Your task to perform on an android device: search for starred emails in the gmail app Image 0: 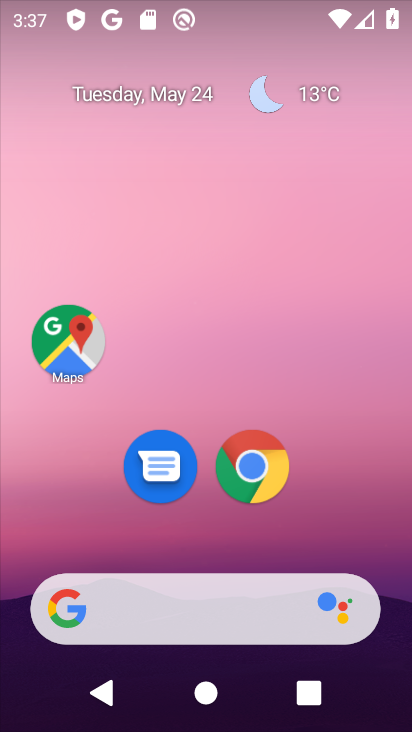
Step 0: drag from (313, 477) to (277, 155)
Your task to perform on an android device: search for starred emails in the gmail app Image 1: 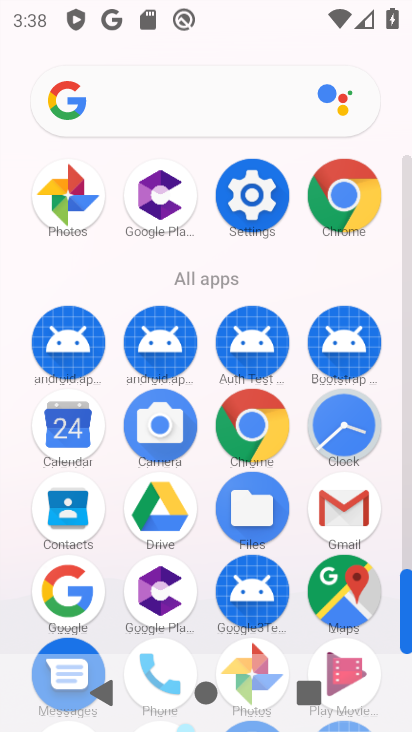
Step 1: click (370, 500)
Your task to perform on an android device: search for starred emails in the gmail app Image 2: 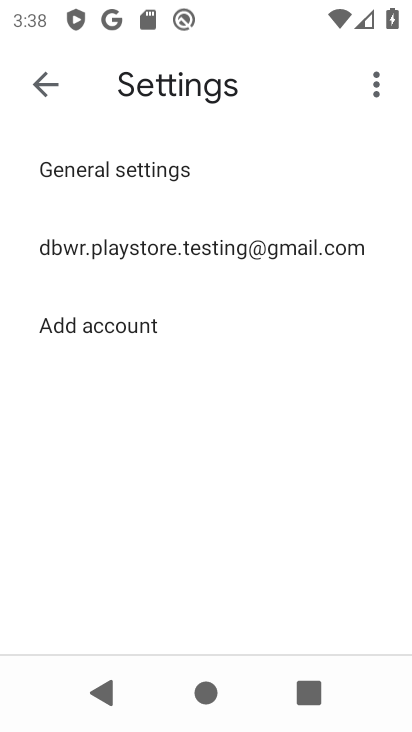
Step 2: click (44, 93)
Your task to perform on an android device: search for starred emails in the gmail app Image 3: 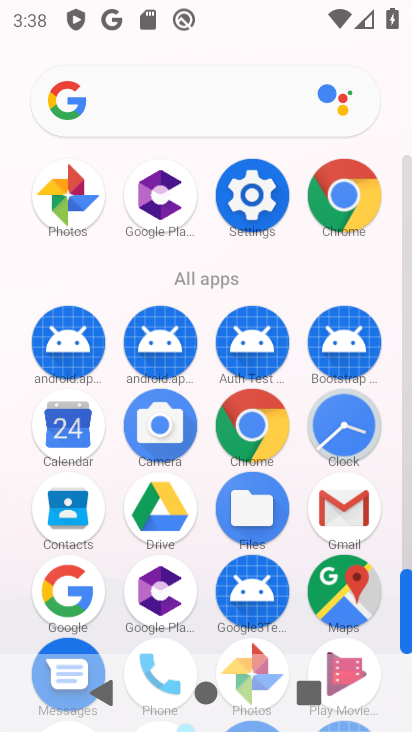
Step 3: click (343, 503)
Your task to perform on an android device: search for starred emails in the gmail app Image 4: 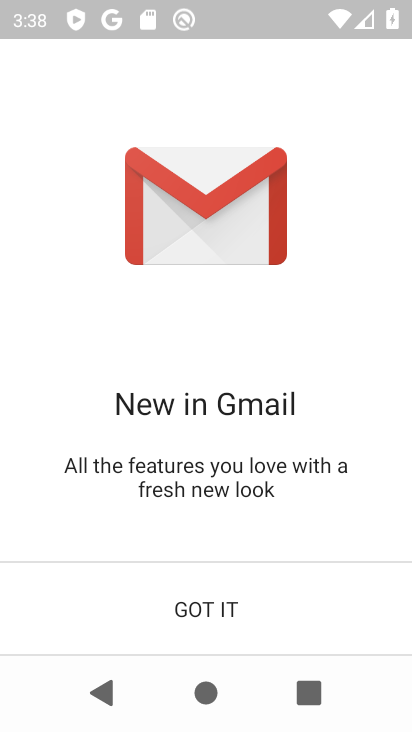
Step 4: click (209, 584)
Your task to perform on an android device: search for starred emails in the gmail app Image 5: 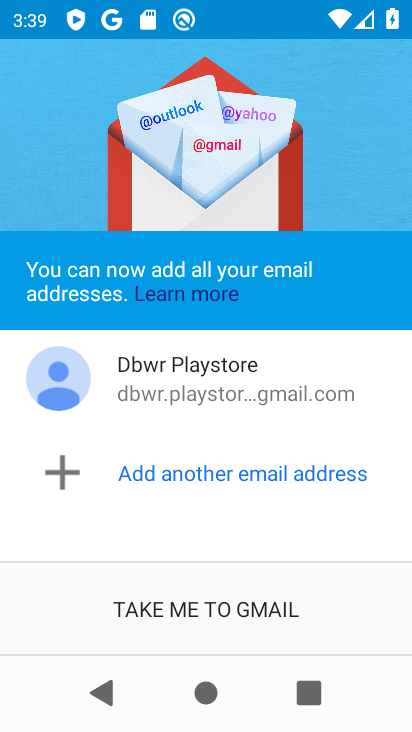
Step 5: click (215, 621)
Your task to perform on an android device: search for starred emails in the gmail app Image 6: 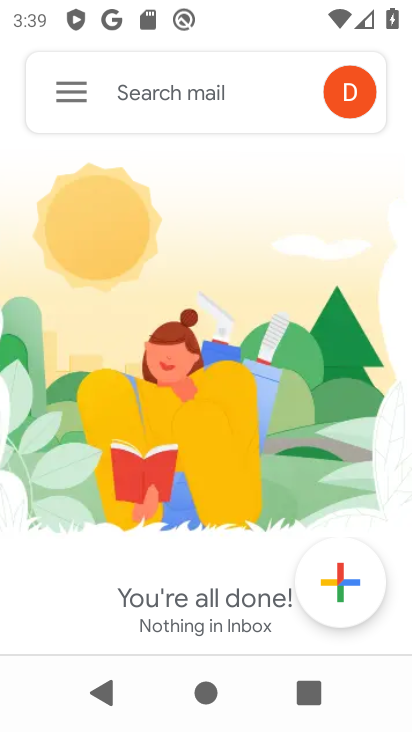
Step 6: click (65, 82)
Your task to perform on an android device: search for starred emails in the gmail app Image 7: 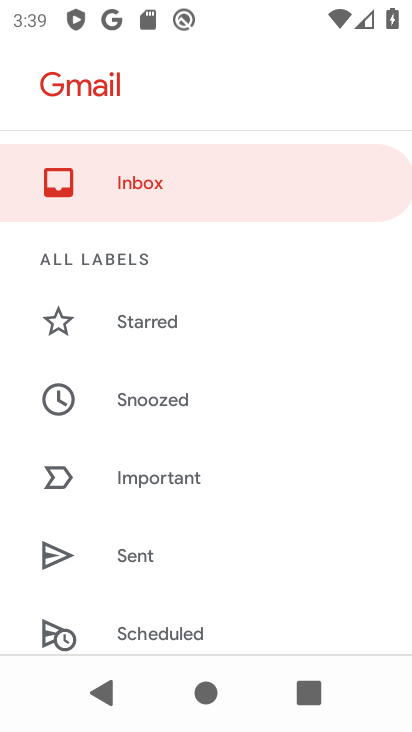
Step 7: click (166, 342)
Your task to perform on an android device: search for starred emails in the gmail app Image 8: 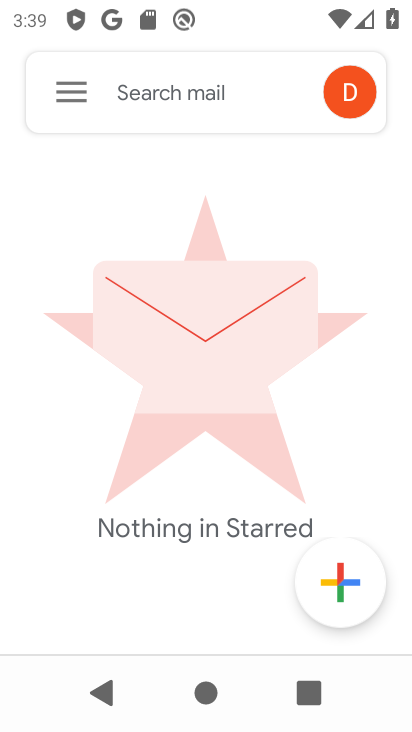
Step 8: task complete